Your task to perform on an android device: What are the new products by Samsung? Image 0: 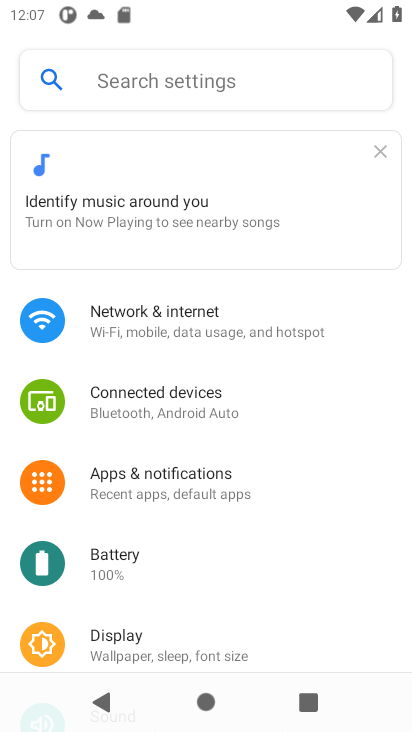
Step 0: press home button
Your task to perform on an android device: What are the new products by Samsung? Image 1: 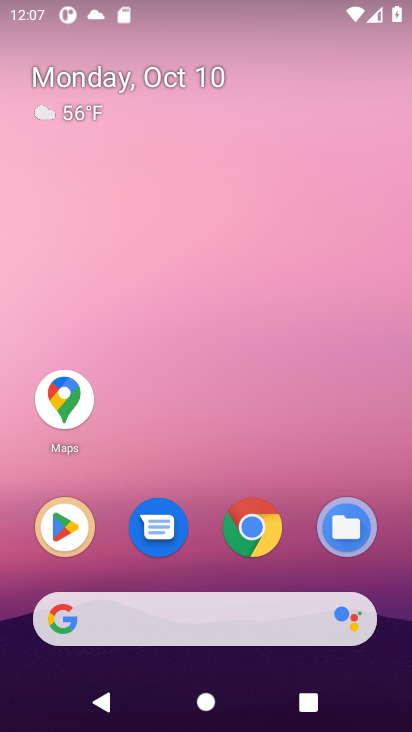
Step 1: click (233, 640)
Your task to perform on an android device: What are the new products by Samsung? Image 2: 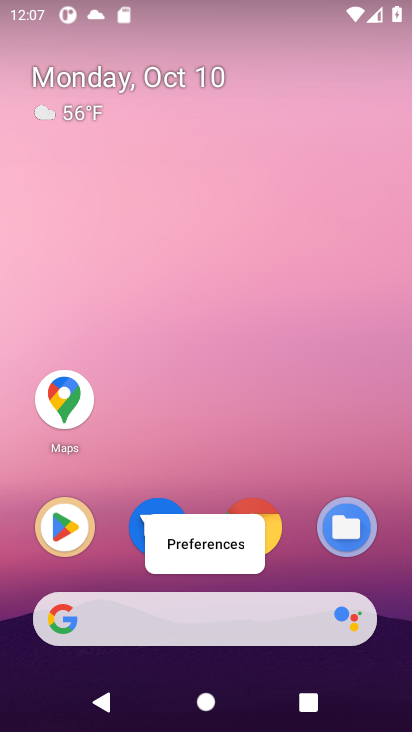
Step 2: click (173, 620)
Your task to perform on an android device: What are the new products by Samsung? Image 3: 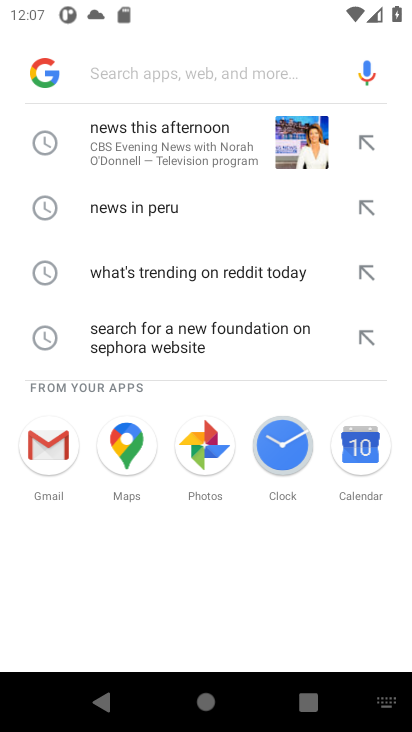
Step 3: click (137, 77)
Your task to perform on an android device: What are the new products by Samsung? Image 4: 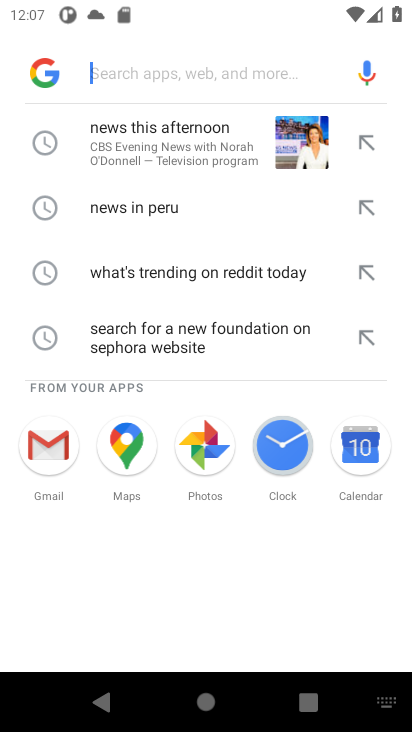
Step 4: type "What are the new products by Samsung?"
Your task to perform on an android device: What are the new products by Samsung? Image 5: 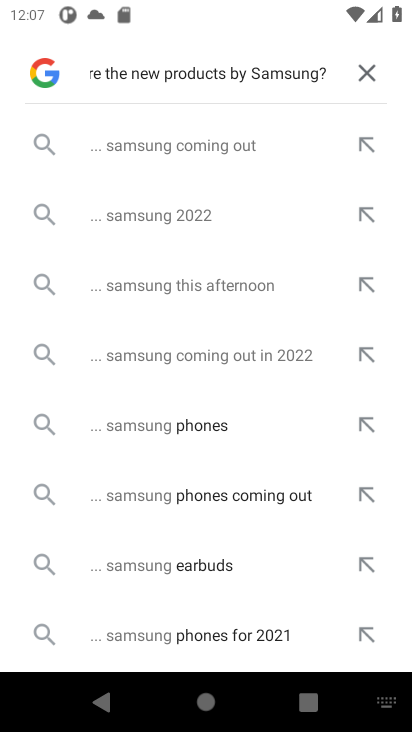
Step 5: click (182, 281)
Your task to perform on an android device: What are the new products by Samsung? Image 6: 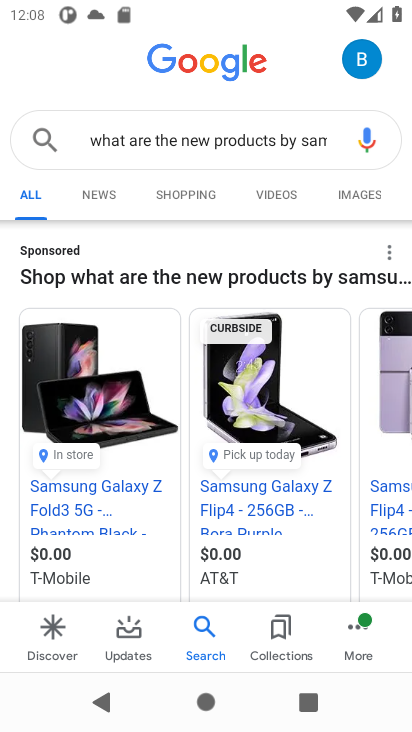
Step 6: drag from (206, 461) to (213, 332)
Your task to perform on an android device: What are the new products by Samsung? Image 7: 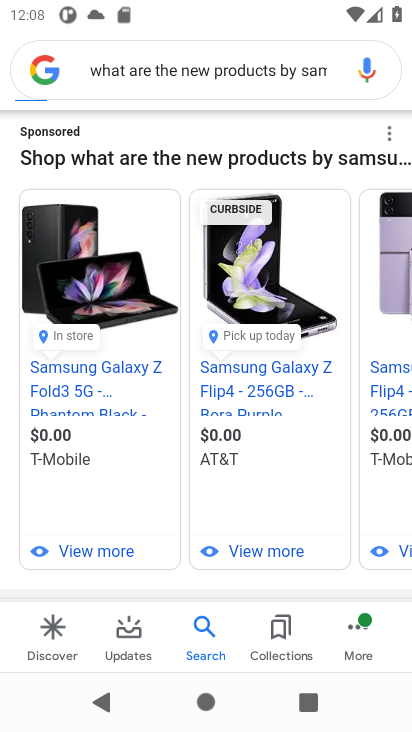
Step 7: drag from (200, 354) to (235, 255)
Your task to perform on an android device: What are the new products by Samsung? Image 8: 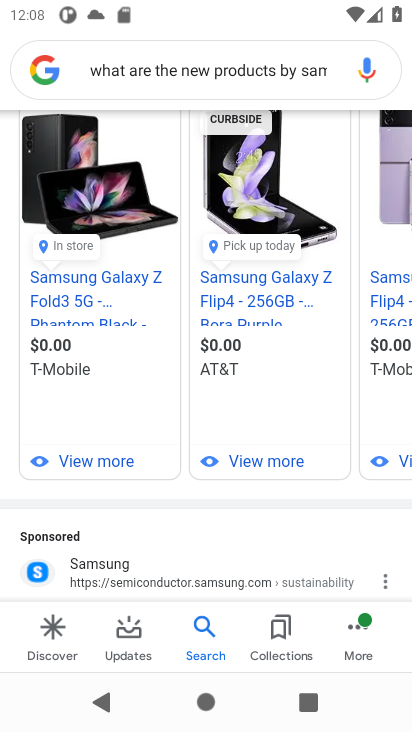
Step 8: drag from (333, 286) to (8, 358)
Your task to perform on an android device: What are the new products by Samsung? Image 9: 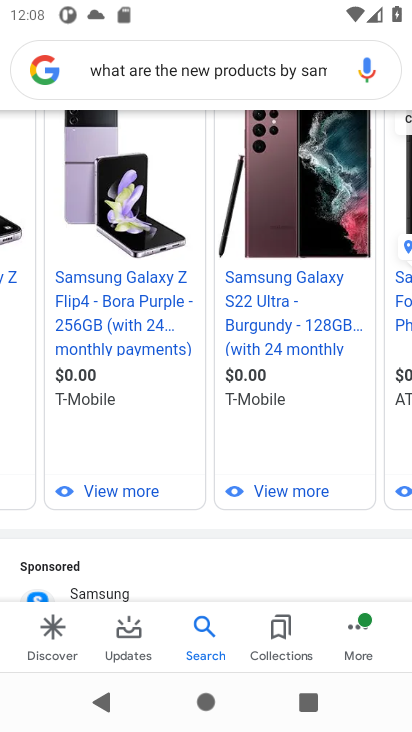
Step 9: drag from (222, 535) to (238, 247)
Your task to perform on an android device: What are the new products by Samsung? Image 10: 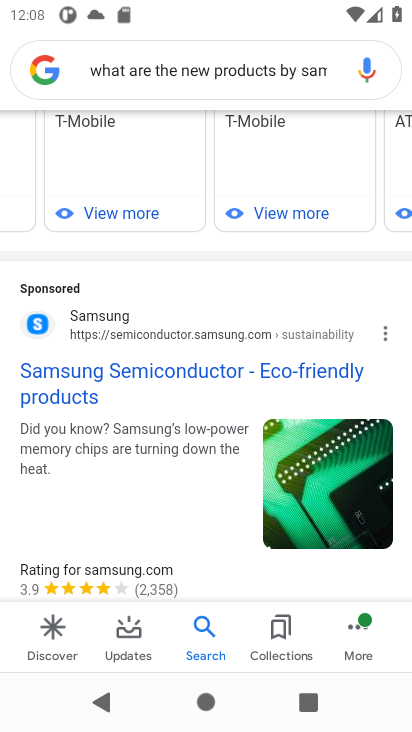
Step 10: click (103, 376)
Your task to perform on an android device: What are the new products by Samsung? Image 11: 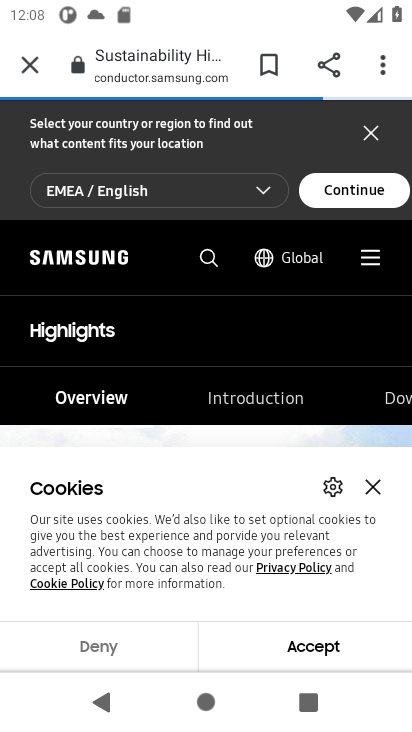
Step 11: drag from (250, 513) to (275, 369)
Your task to perform on an android device: What are the new products by Samsung? Image 12: 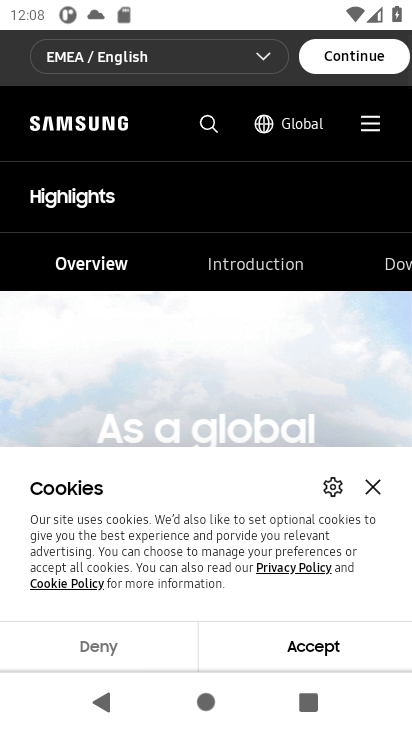
Step 12: drag from (295, 389) to (317, 263)
Your task to perform on an android device: What are the new products by Samsung? Image 13: 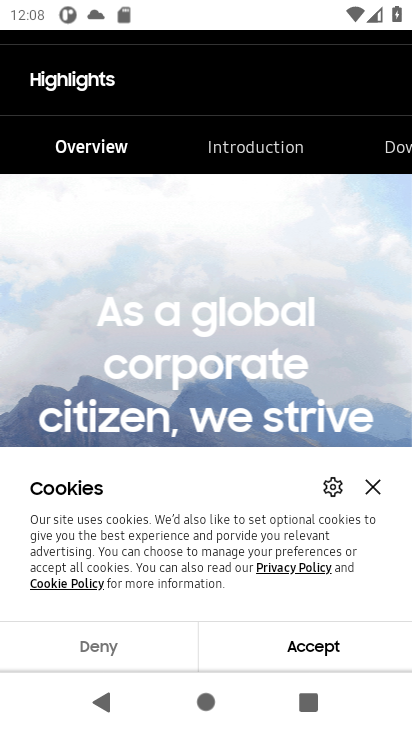
Step 13: drag from (345, 398) to (348, 235)
Your task to perform on an android device: What are the new products by Samsung? Image 14: 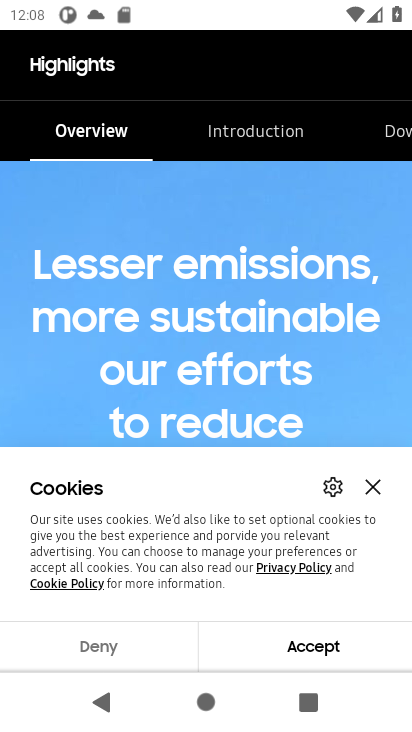
Step 14: drag from (261, 403) to (255, 154)
Your task to perform on an android device: What are the new products by Samsung? Image 15: 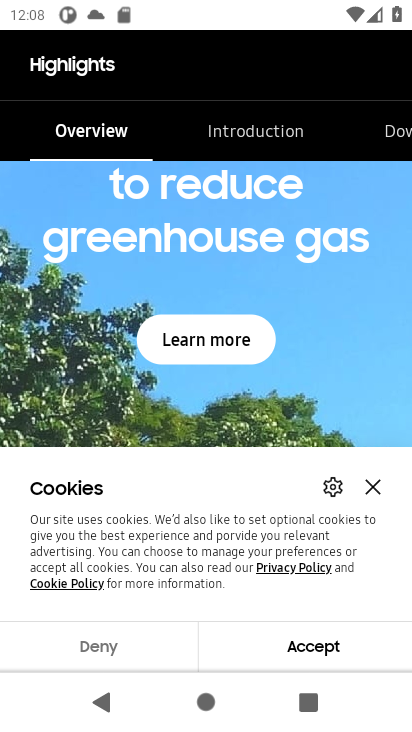
Step 15: click (375, 486)
Your task to perform on an android device: What are the new products by Samsung? Image 16: 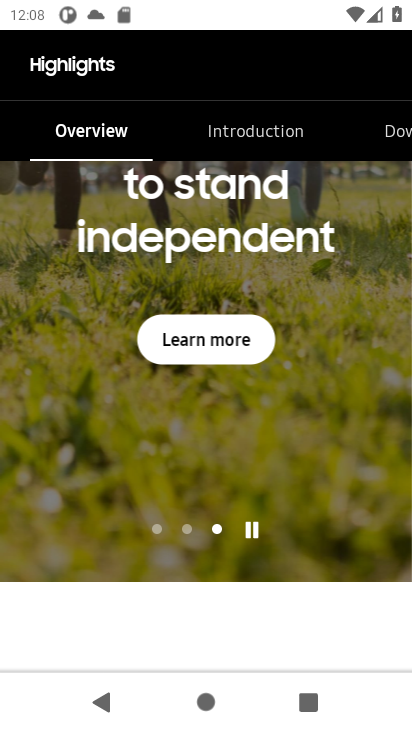
Step 16: drag from (150, 412) to (154, 304)
Your task to perform on an android device: What are the new products by Samsung? Image 17: 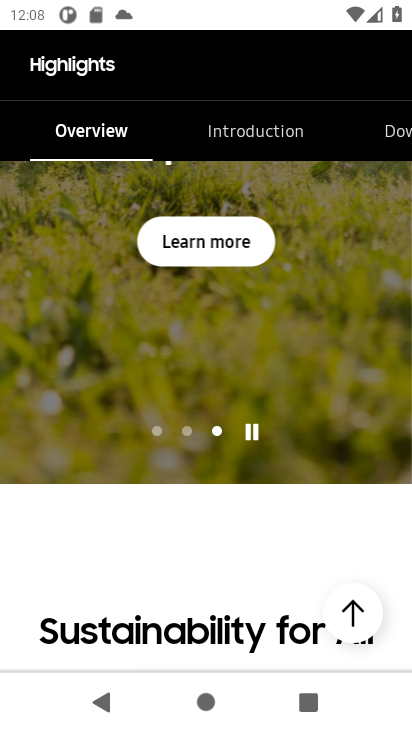
Step 17: drag from (136, 467) to (171, 185)
Your task to perform on an android device: What are the new products by Samsung? Image 18: 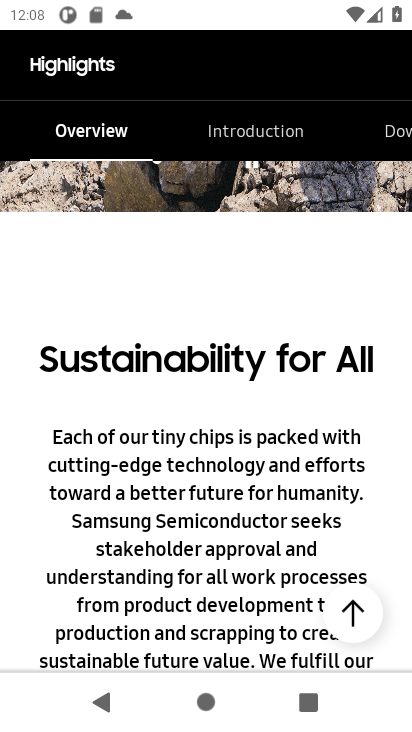
Step 18: drag from (198, 472) to (237, 275)
Your task to perform on an android device: What are the new products by Samsung? Image 19: 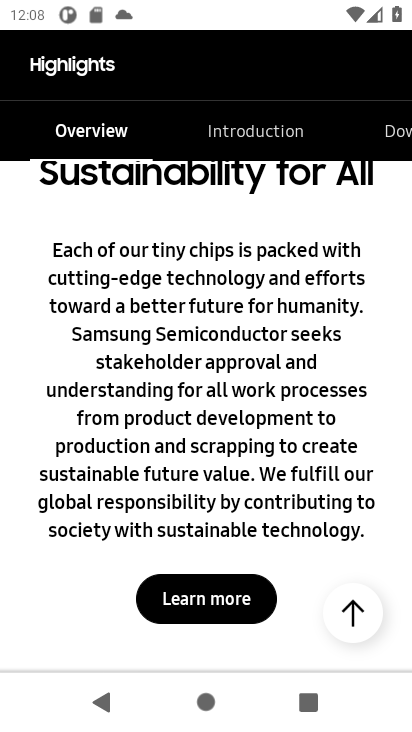
Step 19: drag from (229, 319) to (247, 651)
Your task to perform on an android device: What are the new products by Samsung? Image 20: 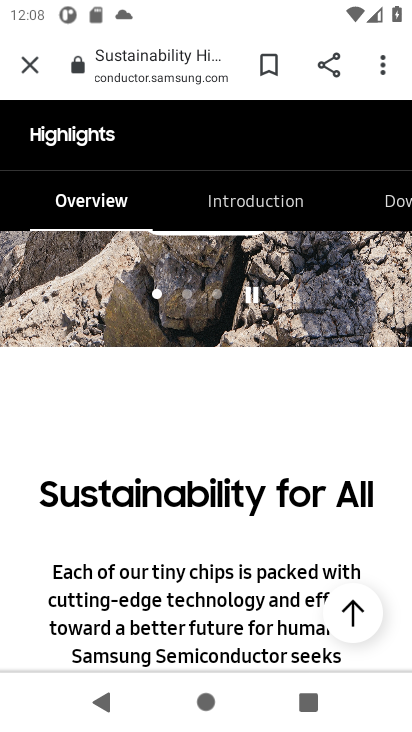
Step 20: drag from (126, 371) to (172, 641)
Your task to perform on an android device: What are the new products by Samsung? Image 21: 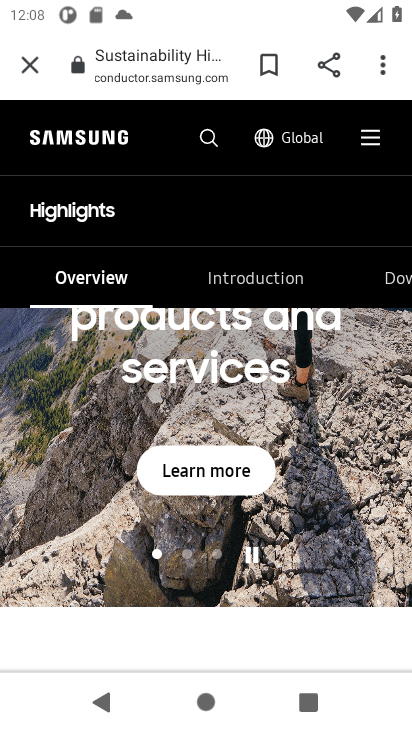
Step 21: drag from (233, 414) to (285, 723)
Your task to perform on an android device: What are the new products by Samsung? Image 22: 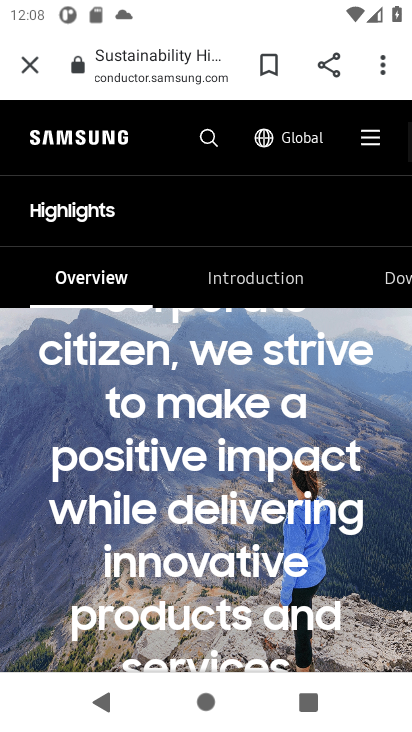
Step 22: drag from (272, 465) to (50, 416)
Your task to perform on an android device: What are the new products by Samsung? Image 23: 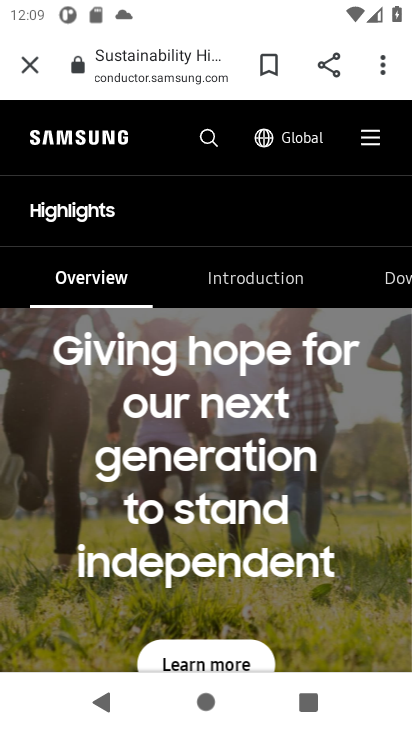
Step 23: drag from (289, 413) to (0, 350)
Your task to perform on an android device: What are the new products by Samsung? Image 24: 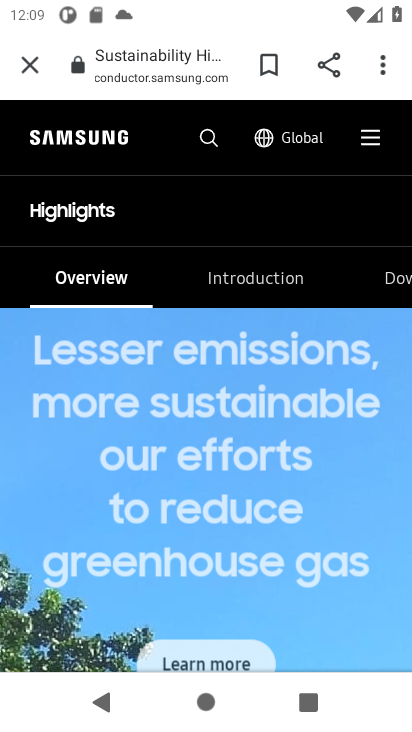
Step 24: click (247, 281)
Your task to perform on an android device: What are the new products by Samsung? Image 25: 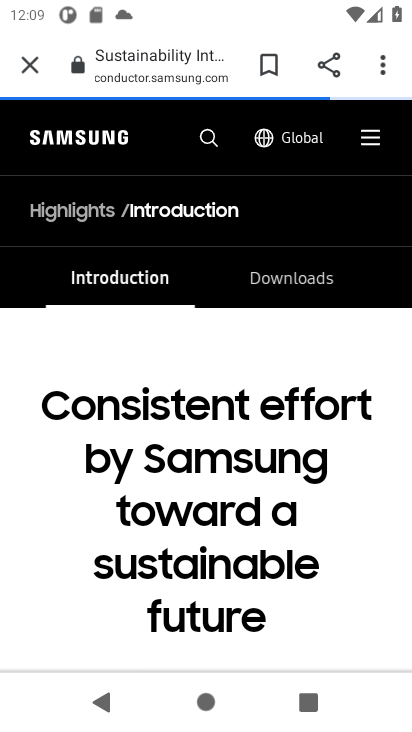
Step 25: drag from (251, 558) to (271, 306)
Your task to perform on an android device: What are the new products by Samsung? Image 26: 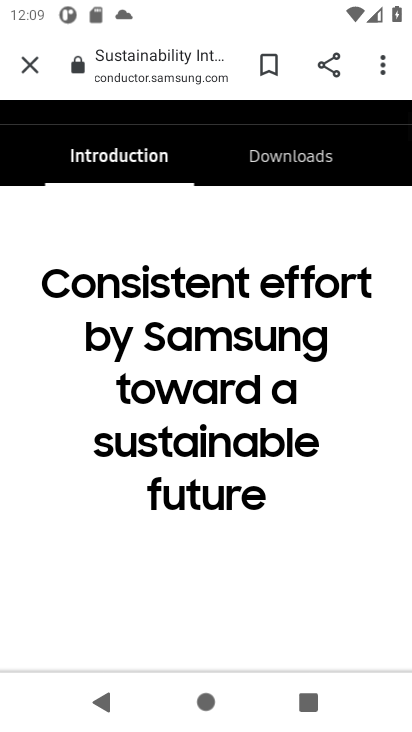
Step 26: drag from (232, 430) to (201, 648)
Your task to perform on an android device: What are the new products by Samsung? Image 27: 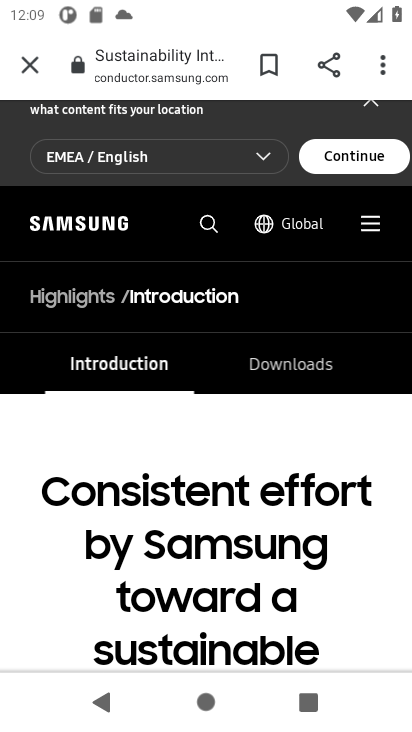
Step 27: drag from (232, 463) to (223, 77)
Your task to perform on an android device: What are the new products by Samsung? Image 28: 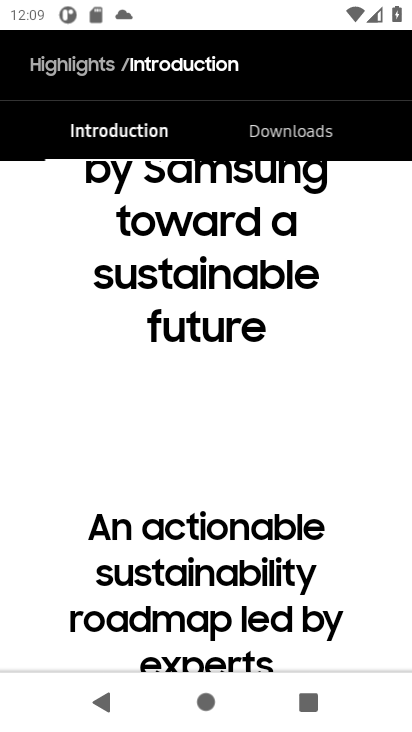
Step 28: drag from (183, 372) to (189, 10)
Your task to perform on an android device: What are the new products by Samsung? Image 29: 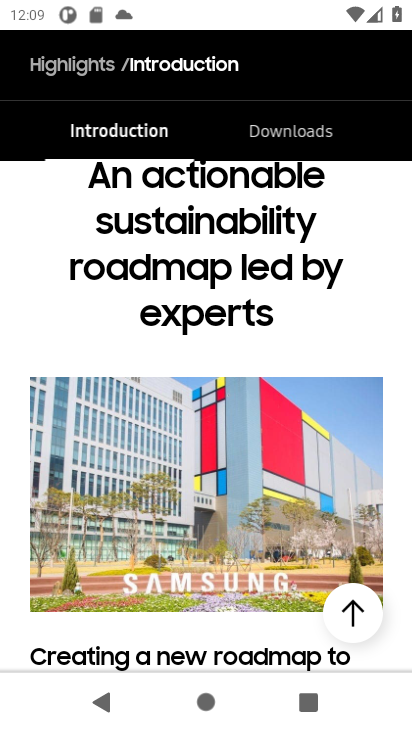
Step 29: drag from (192, 451) to (196, 128)
Your task to perform on an android device: What are the new products by Samsung? Image 30: 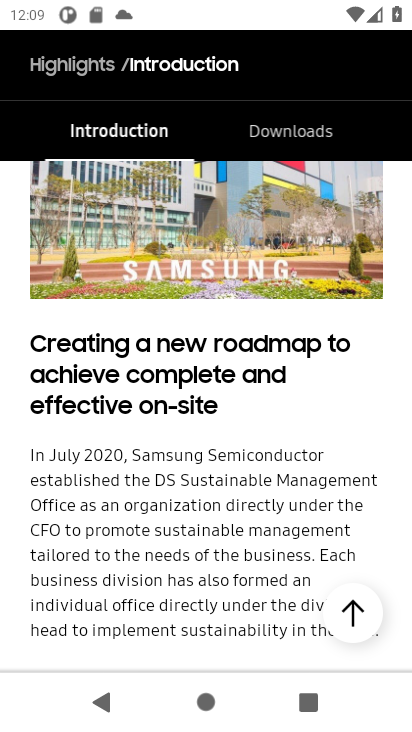
Step 30: drag from (196, 526) to (191, 143)
Your task to perform on an android device: What are the new products by Samsung? Image 31: 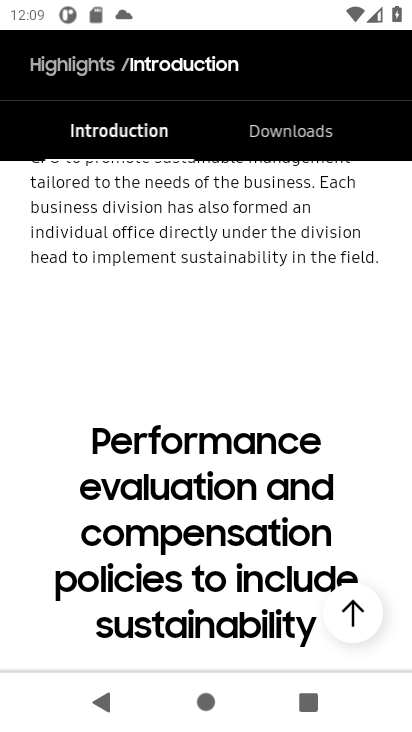
Step 31: drag from (193, 598) to (155, 191)
Your task to perform on an android device: What are the new products by Samsung? Image 32: 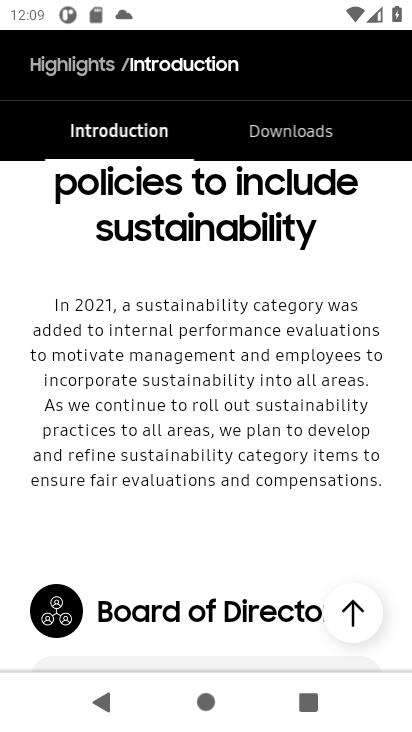
Step 32: drag from (167, 498) to (174, 223)
Your task to perform on an android device: What are the new products by Samsung? Image 33: 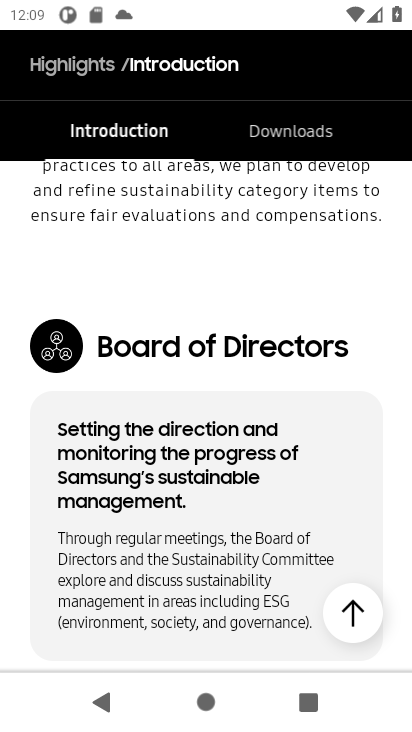
Step 33: press back button
Your task to perform on an android device: What are the new products by Samsung? Image 34: 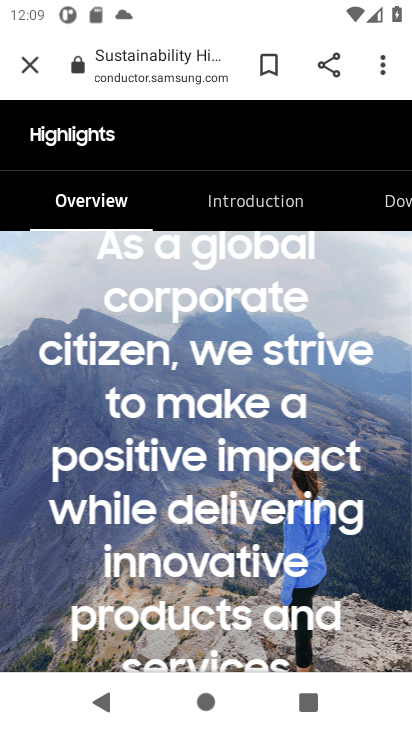
Step 34: click (27, 70)
Your task to perform on an android device: What are the new products by Samsung? Image 35: 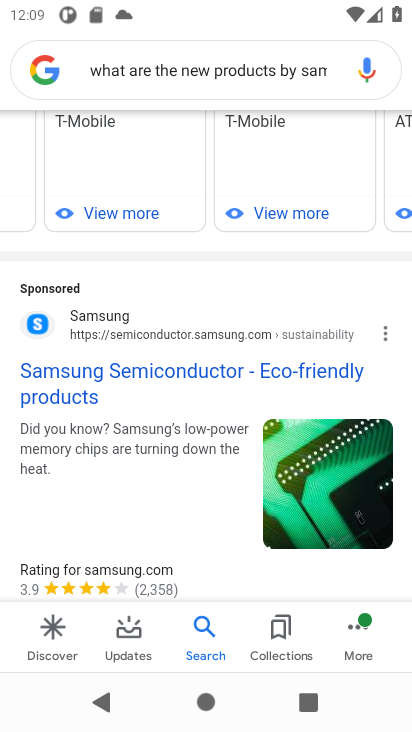
Step 35: drag from (156, 497) to (172, 197)
Your task to perform on an android device: What are the new products by Samsung? Image 36: 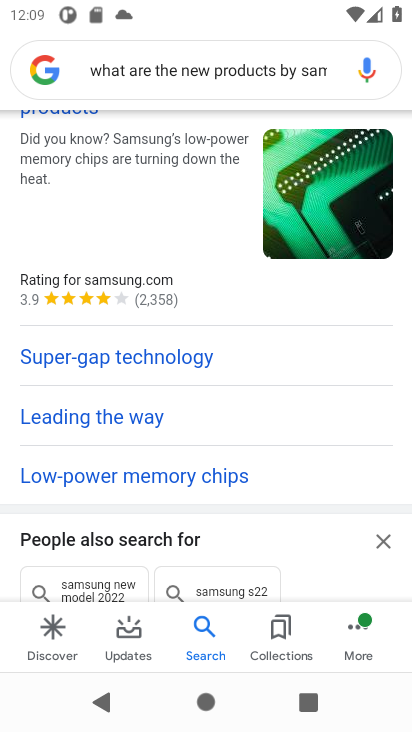
Step 36: drag from (176, 486) to (170, 222)
Your task to perform on an android device: What are the new products by Samsung? Image 37: 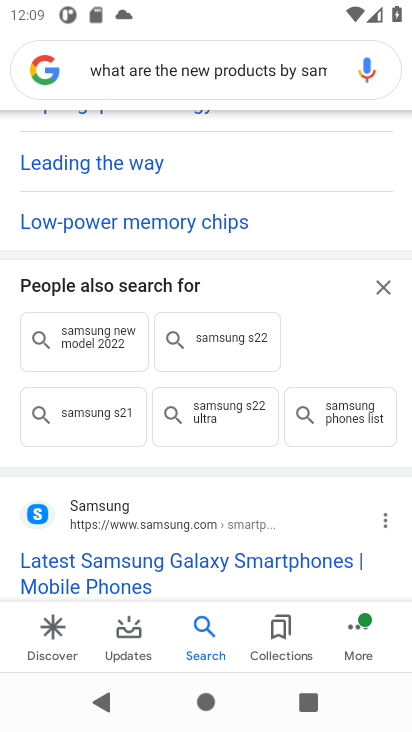
Step 37: drag from (122, 495) to (193, 243)
Your task to perform on an android device: What are the new products by Samsung? Image 38: 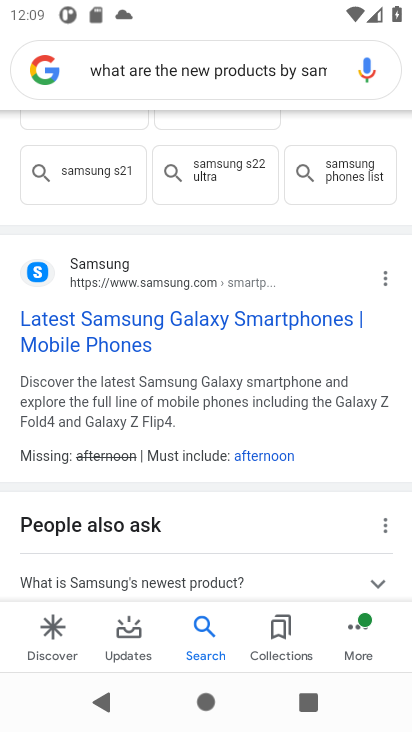
Step 38: click (112, 332)
Your task to perform on an android device: What are the new products by Samsung? Image 39: 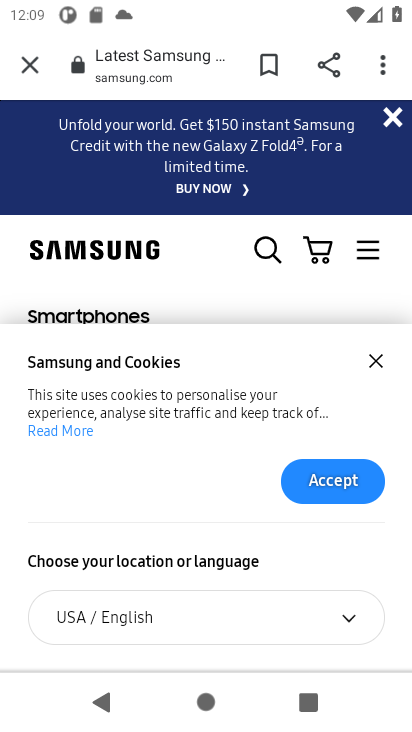
Step 39: drag from (277, 417) to (286, 320)
Your task to perform on an android device: What are the new products by Samsung? Image 40: 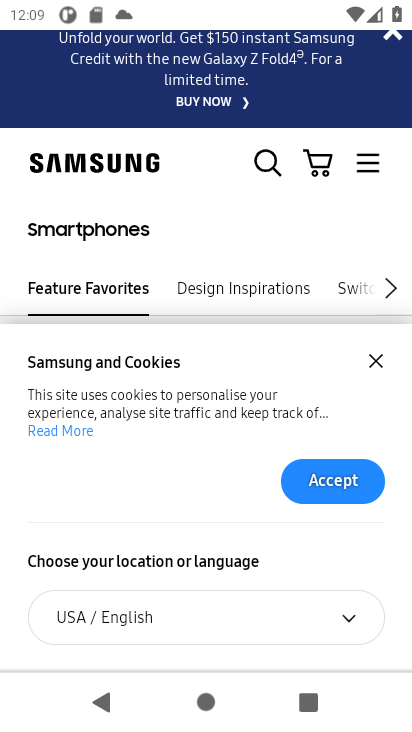
Step 40: press back button
Your task to perform on an android device: What are the new products by Samsung? Image 41: 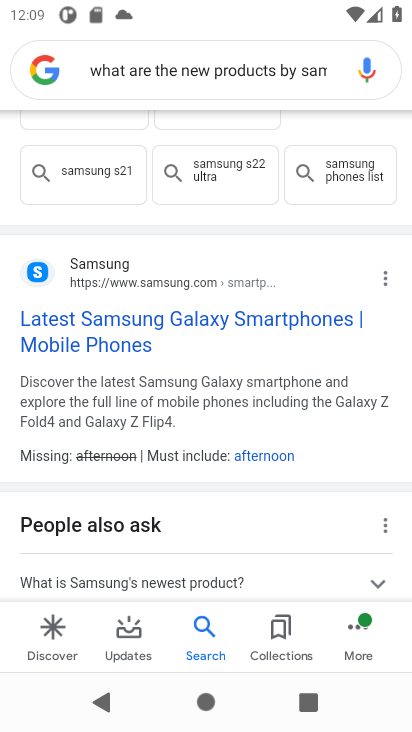
Step 41: drag from (210, 454) to (221, 375)
Your task to perform on an android device: What are the new products by Samsung? Image 42: 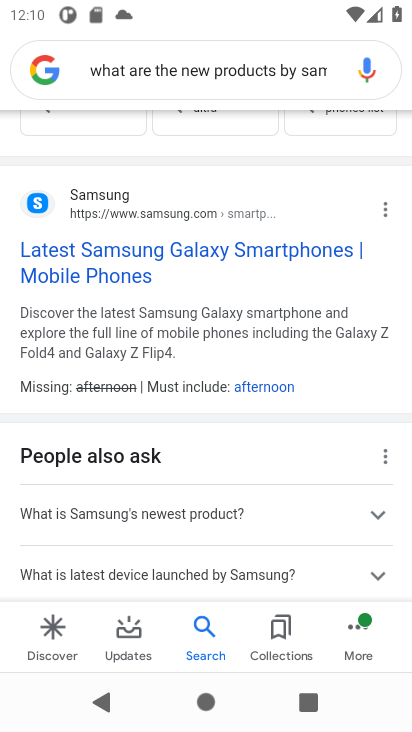
Step 42: click (142, 516)
Your task to perform on an android device: What are the new products by Samsung? Image 43: 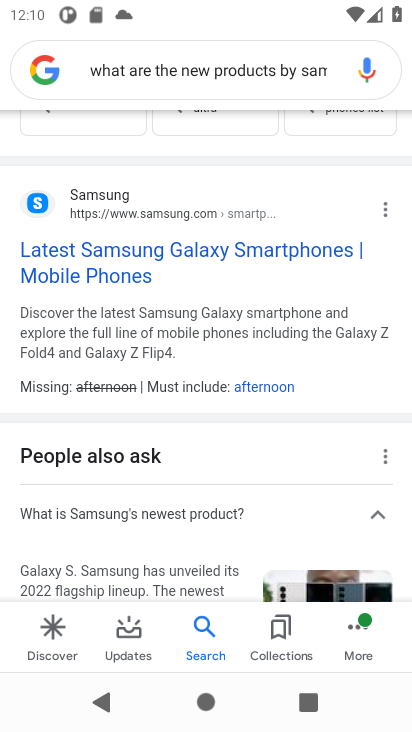
Step 43: click (102, 508)
Your task to perform on an android device: What are the new products by Samsung? Image 44: 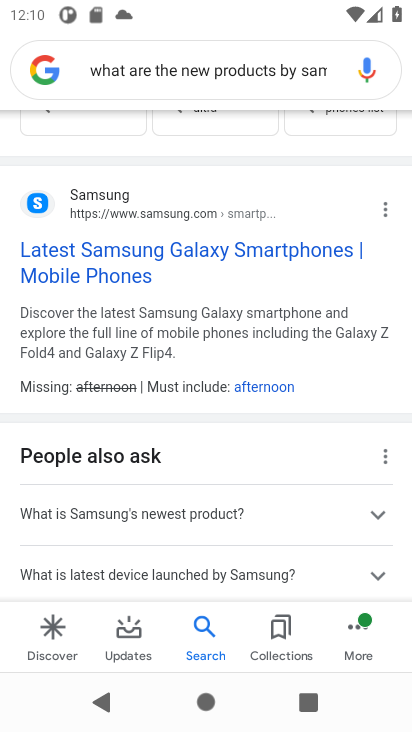
Step 44: click (129, 519)
Your task to perform on an android device: What are the new products by Samsung? Image 45: 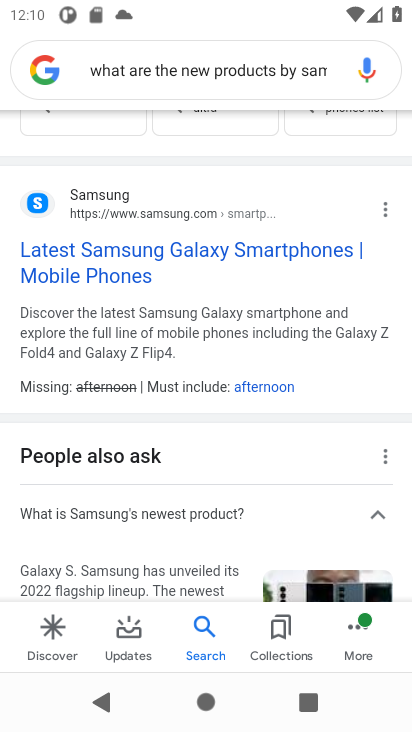
Step 45: task complete